Your task to perform on an android device: all mails in gmail Image 0: 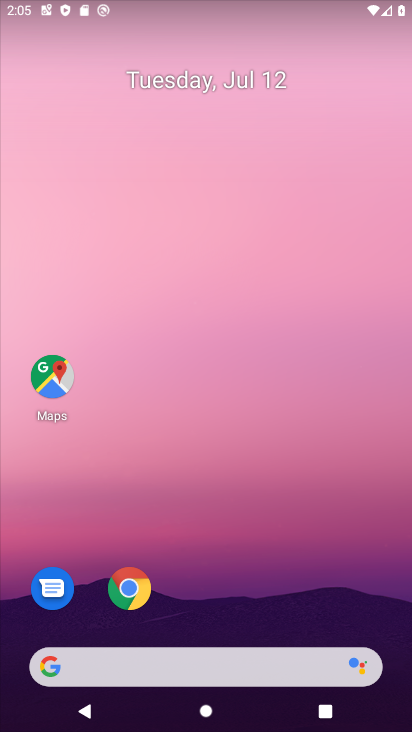
Step 0: drag from (248, 660) to (106, 207)
Your task to perform on an android device: all mails in gmail Image 1: 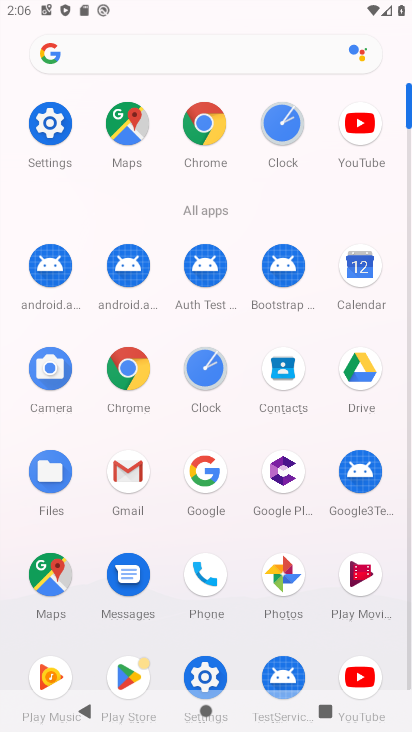
Step 1: click (115, 479)
Your task to perform on an android device: all mails in gmail Image 2: 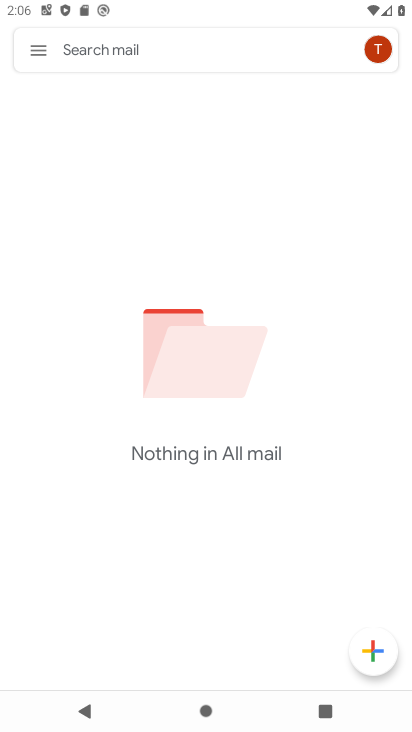
Step 2: task complete